Your task to perform on an android device: Search for a new foundation (skincare) product Image 0: 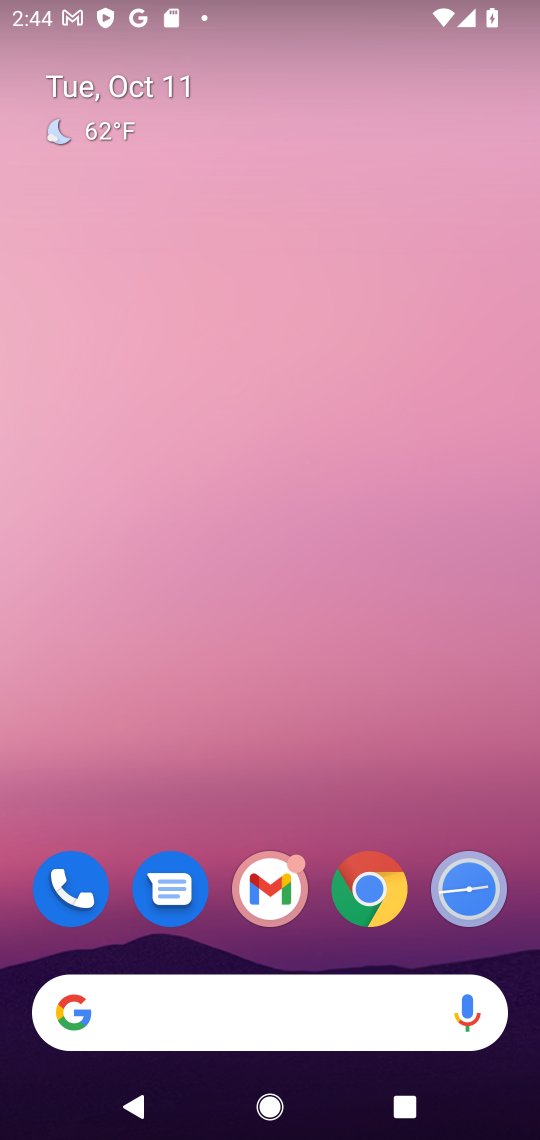
Step 0: drag from (213, 832) to (343, 481)
Your task to perform on an android device: Search for a new foundation (skincare) product Image 1: 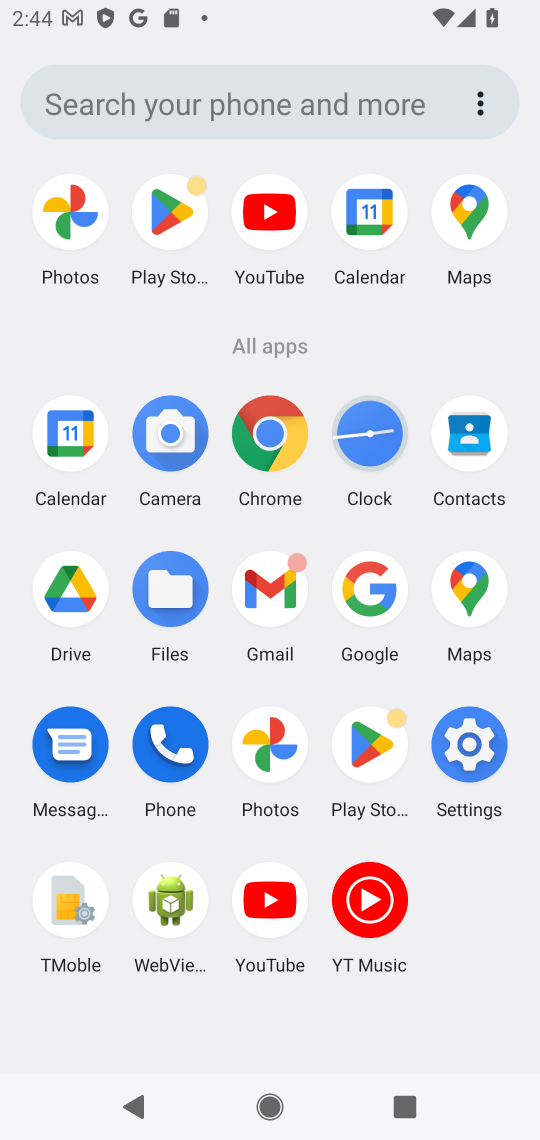
Step 1: click (376, 582)
Your task to perform on an android device: Search for a new foundation (skincare) product Image 2: 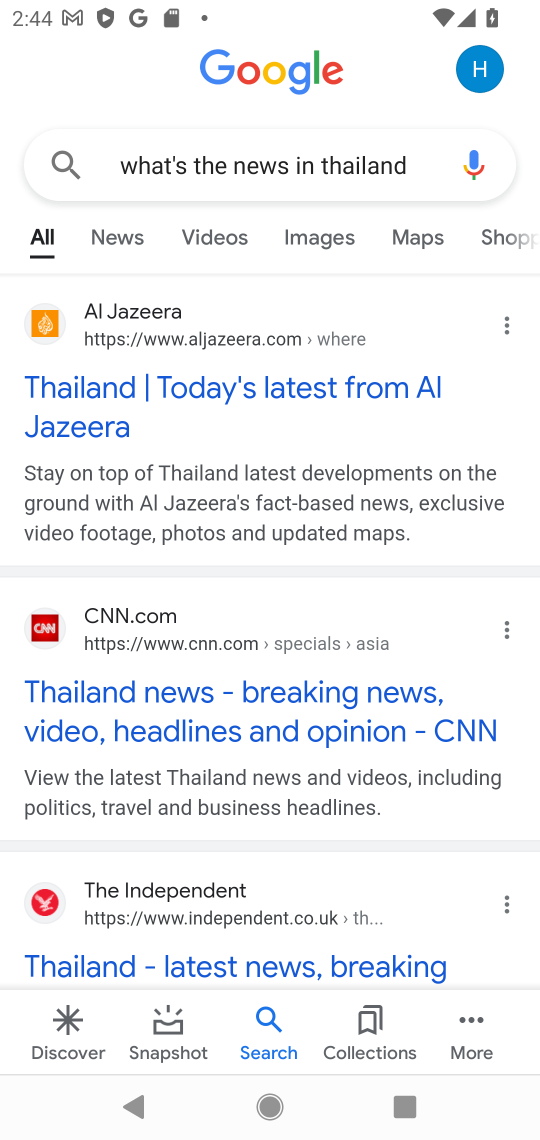
Step 2: click (289, 164)
Your task to perform on an android device: Search for a new foundation (skincare) product Image 3: 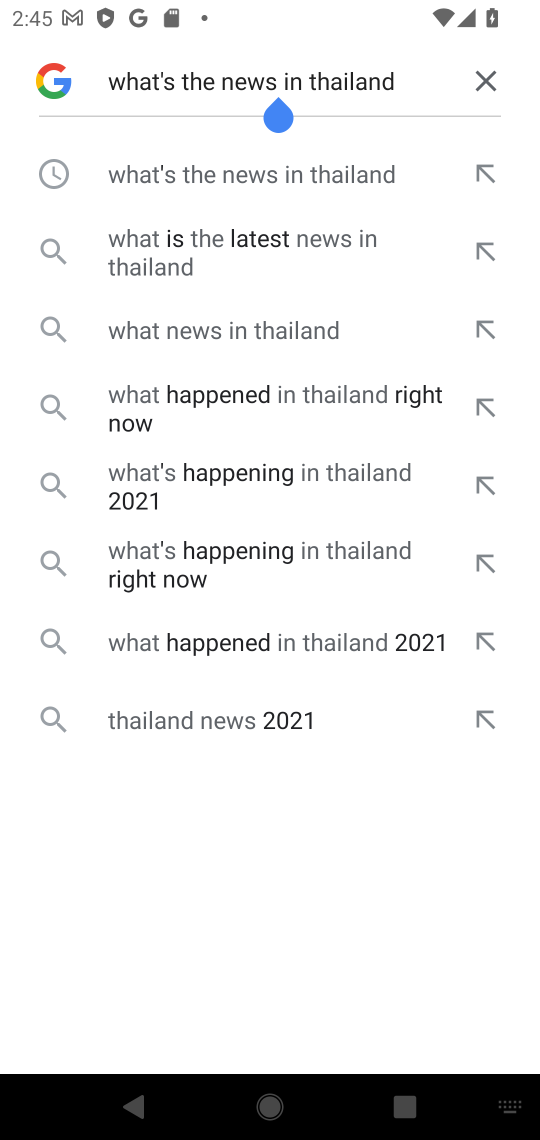
Step 3: click (481, 76)
Your task to perform on an android device: Search for a new foundation (skincare) product Image 4: 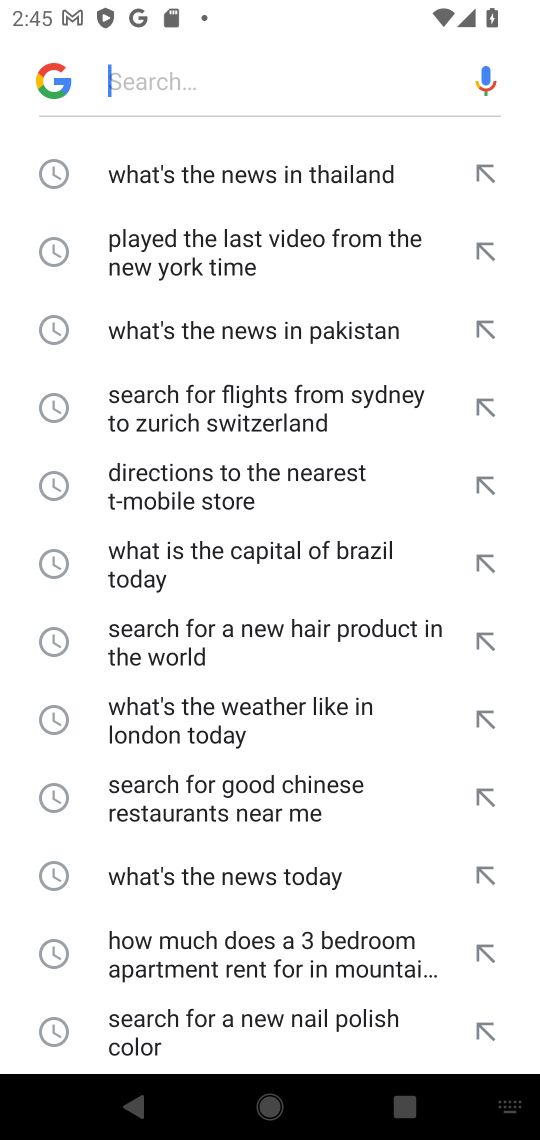
Step 4: click (190, 83)
Your task to perform on an android device: Search for a new foundation (skincare) product Image 5: 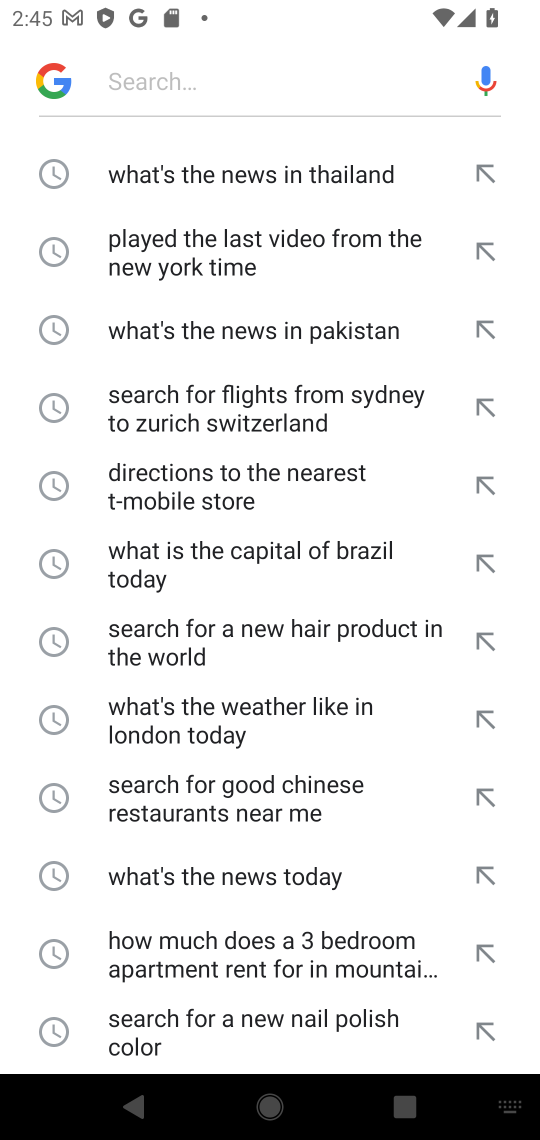
Step 5: type "Search for a new foundation (skincare) product "
Your task to perform on an android device: Search for a new foundation (skincare) product Image 6: 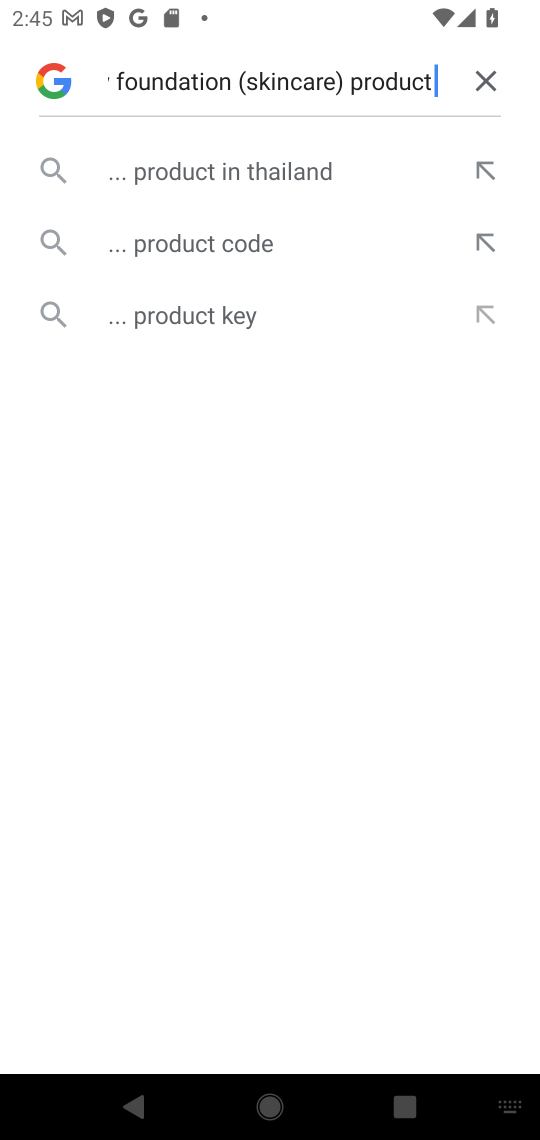
Step 6: click (239, 169)
Your task to perform on an android device: Search for a new foundation (skincare) product Image 7: 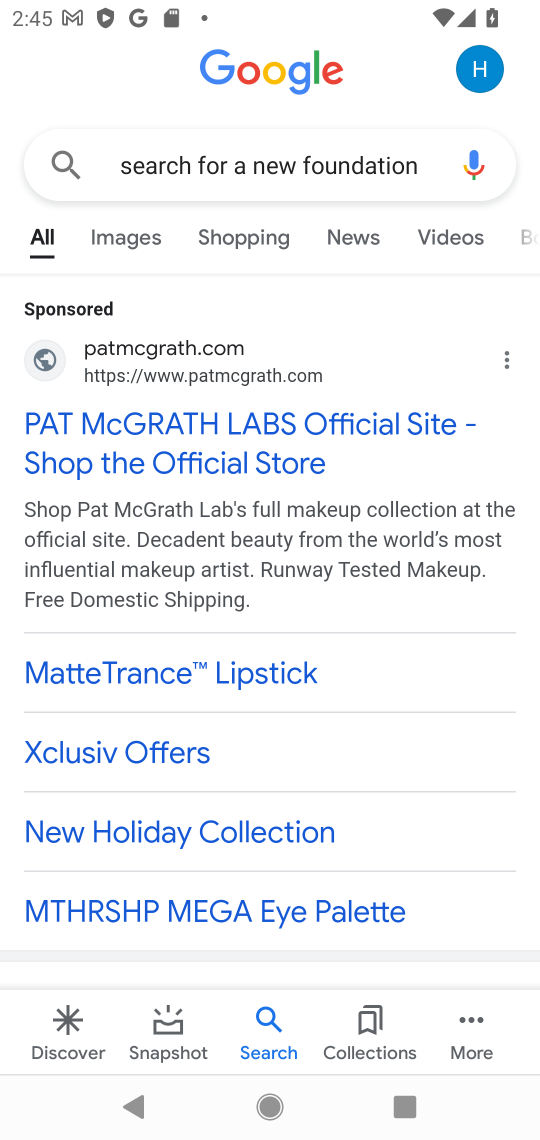
Step 7: drag from (141, 868) to (220, 506)
Your task to perform on an android device: Search for a new foundation (skincare) product Image 8: 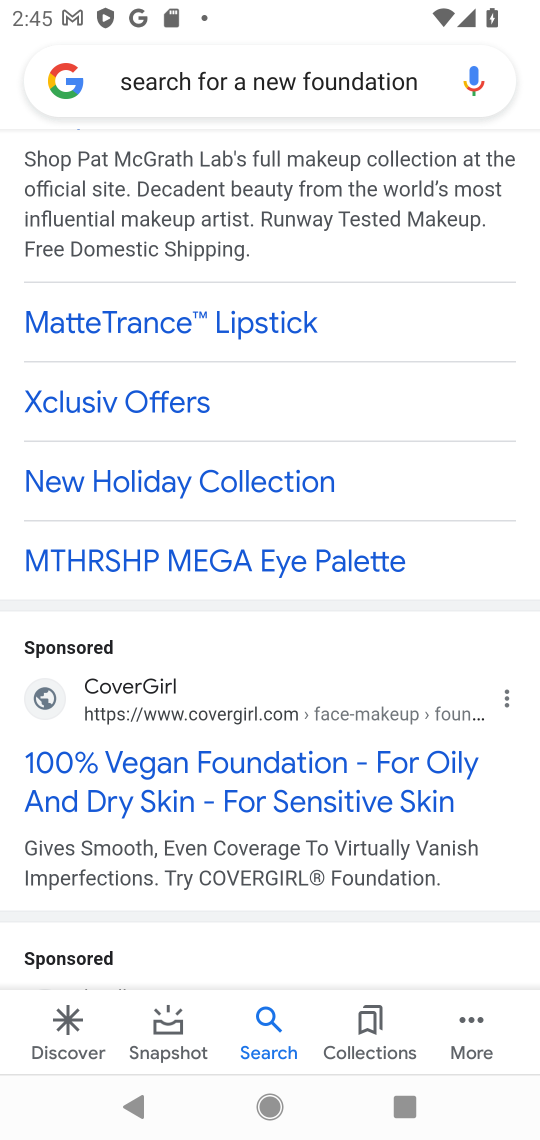
Step 8: click (275, 767)
Your task to perform on an android device: Search for a new foundation (skincare) product Image 9: 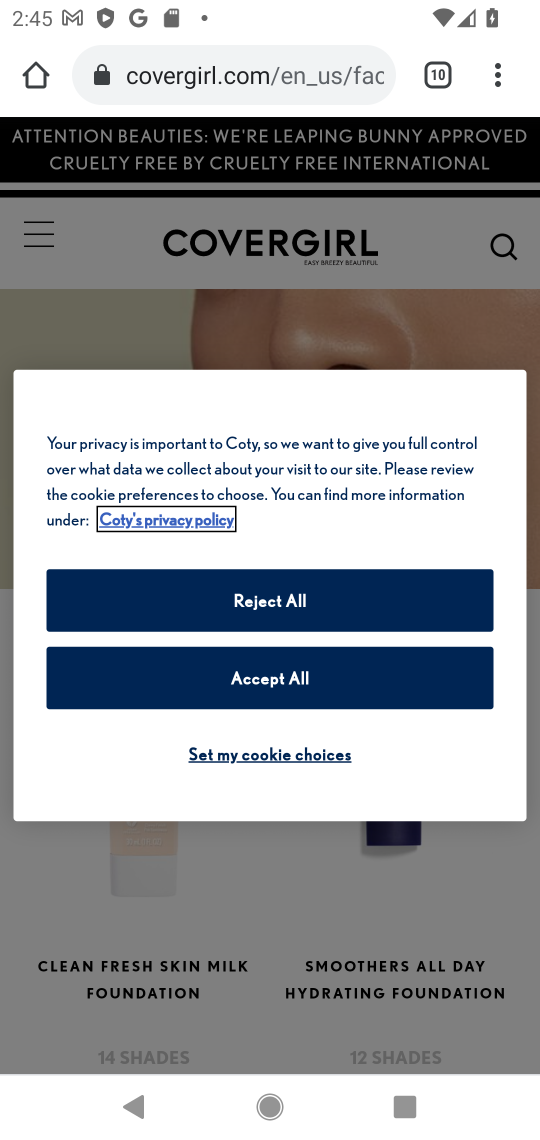
Step 9: click (315, 678)
Your task to perform on an android device: Search for a new foundation (skincare) product Image 10: 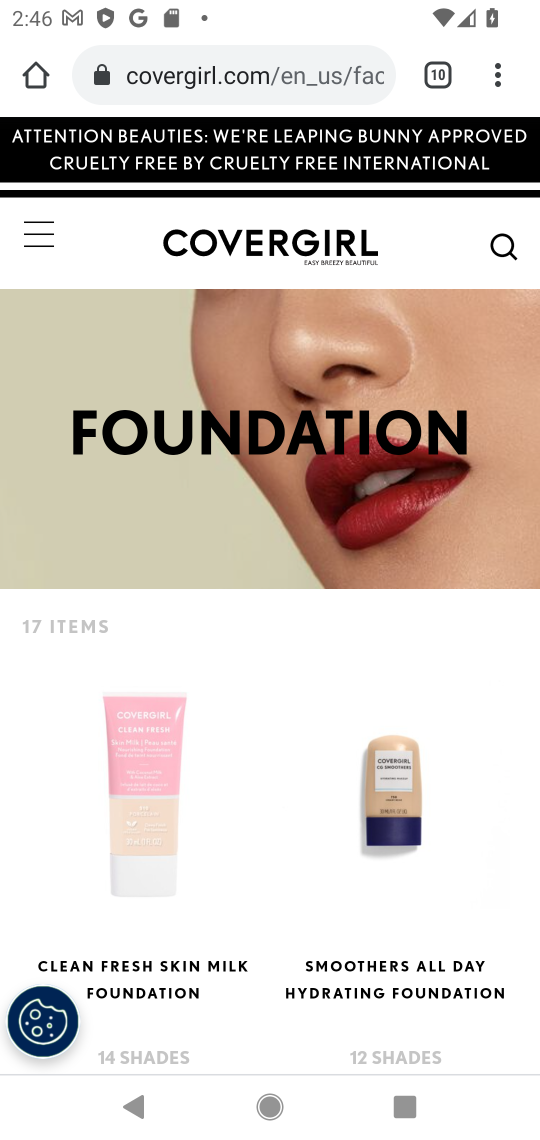
Step 10: task complete